Your task to perform on an android device: Go to display settings Image 0: 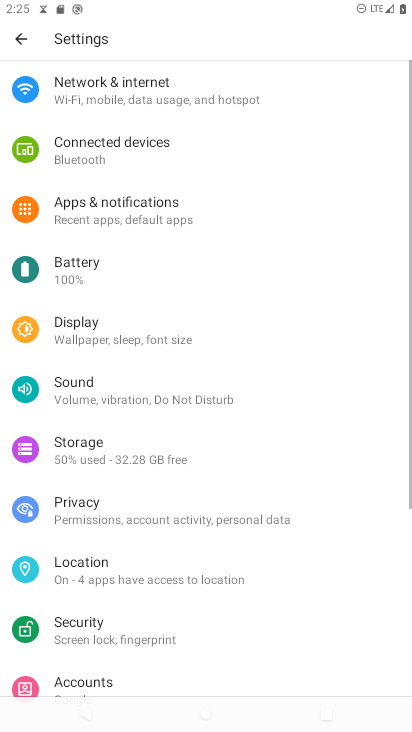
Step 0: click (97, 323)
Your task to perform on an android device: Go to display settings Image 1: 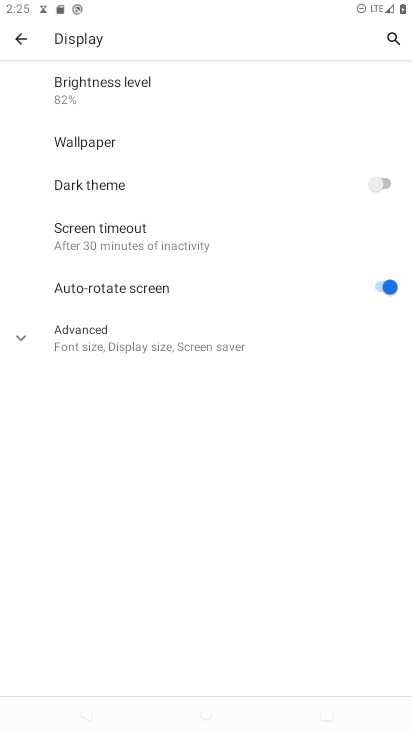
Step 1: task complete